Your task to perform on an android device: Go to Android settings Image 0: 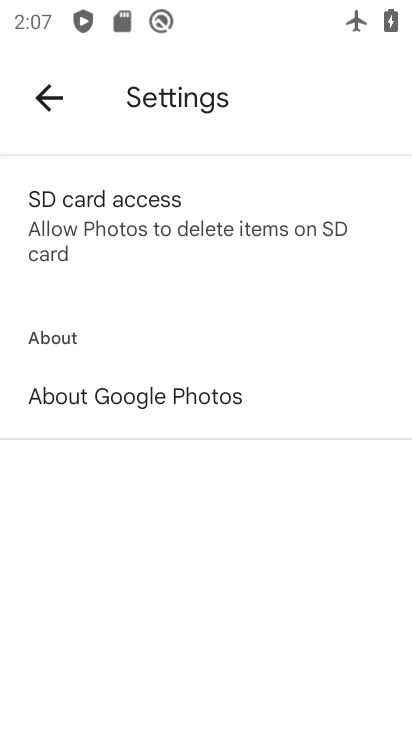
Step 0: press home button
Your task to perform on an android device: Go to Android settings Image 1: 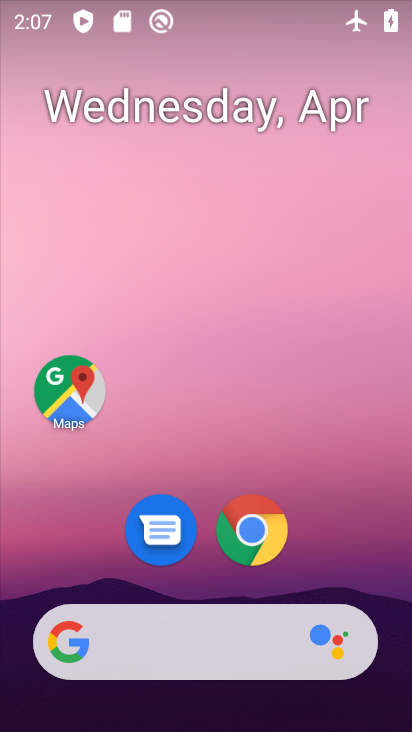
Step 1: drag from (330, 493) to (300, 217)
Your task to perform on an android device: Go to Android settings Image 2: 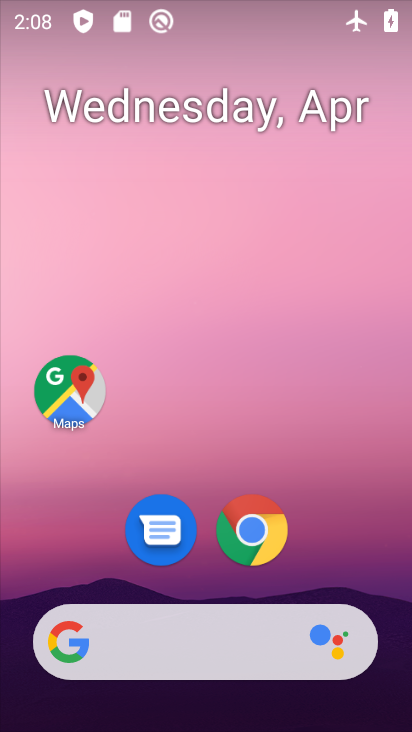
Step 2: drag from (332, 493) to (271, 70)
Your task to perform on an android device: Go to Android settings Image 3: 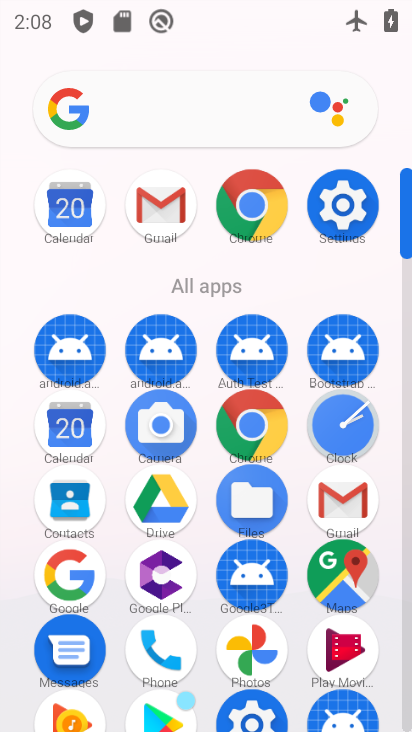
Step 3: click (334, 187)
Your task to perform on an android device: Go to Android settings Image 4: 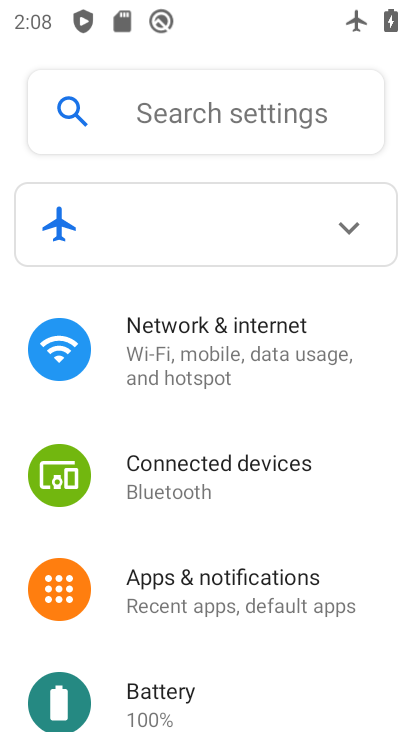
Step 4: task complete